Your task to perform on an android device: toggle priority inbox in the gmail app Image 0: 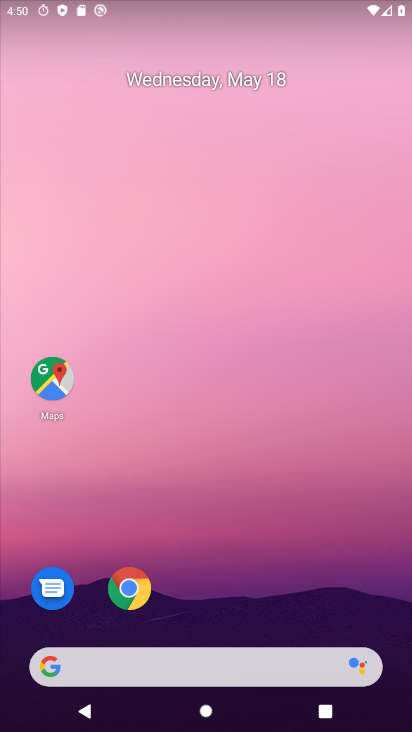
Step 0: drag from (273, 592) to (297, 39)
Your task to perform on an android device: toggle priority inbox in the gmail app Image 1: 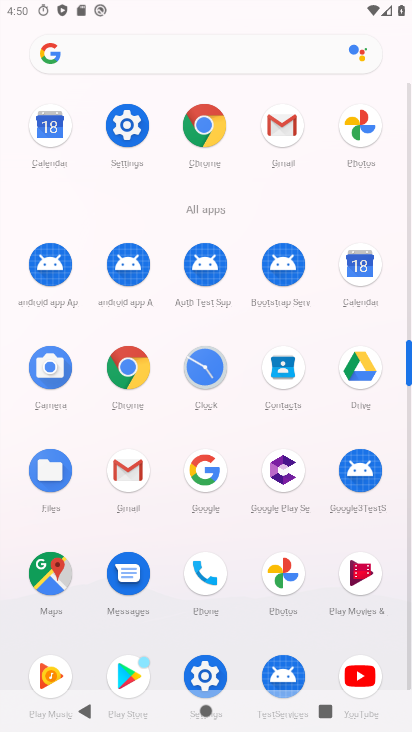
Step 1: click (123, 475)
Your task to perform on an android device: toggle priority inbox in the gmail app Image 2: 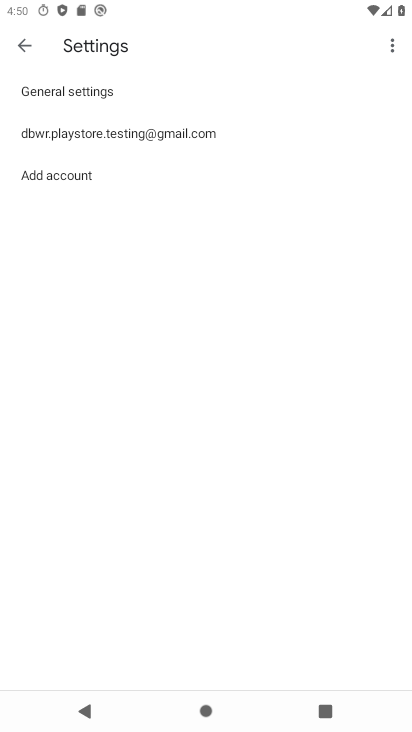
Step 2: click (180, 136)
Your task to perform on an android device: toggle priority inbox in the gmail app Image 3: 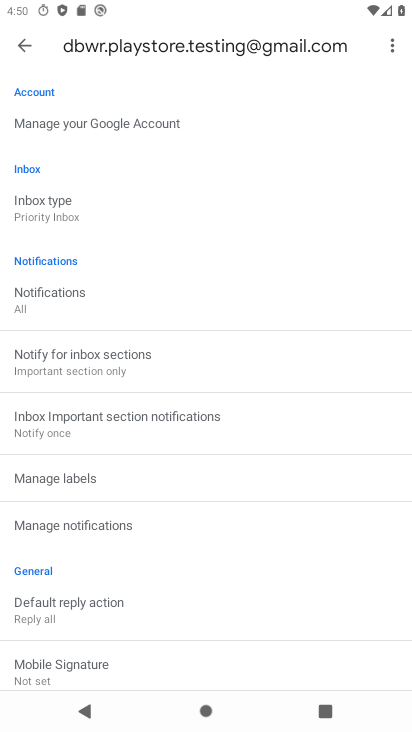
Step 3: click (45, 209)
Your task to perform on an android device: toggle priority inbox in the gmail app Image 4: 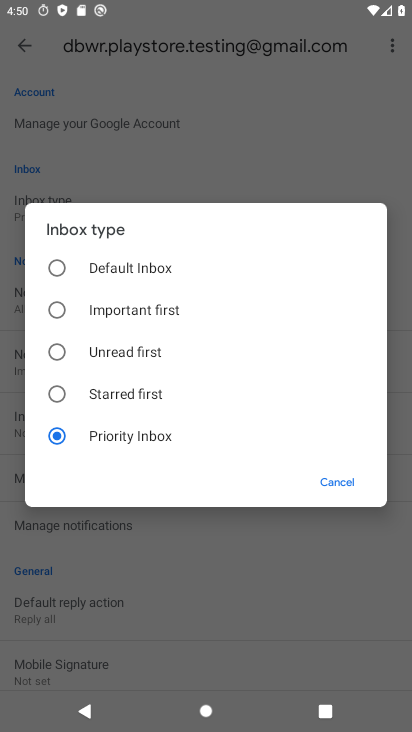
Step 4: click (122, 273)
Your task to perform on an android device: toggle priority inbox in the gmail app Image 5: 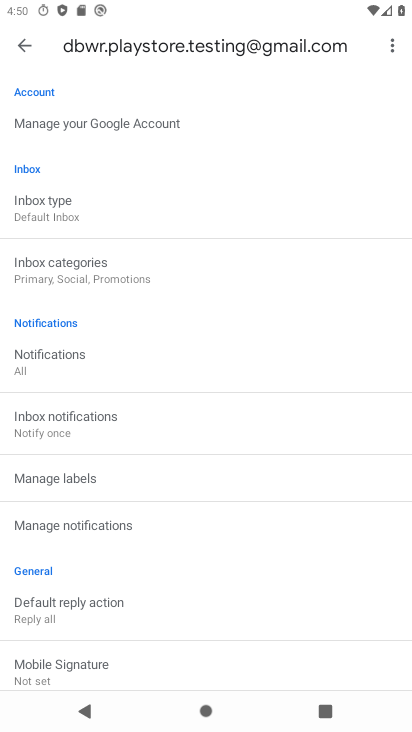
Step 5: task complete